Your task to perform on an android device: change alarm snooze length Image 0: 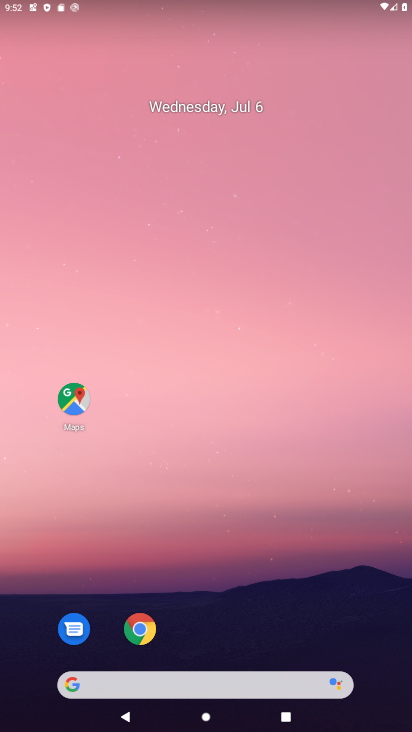
Step 0: drag from (231, 344) to (194, 99)
Your task to perform on an android device: change alarm snooze length Image 1: 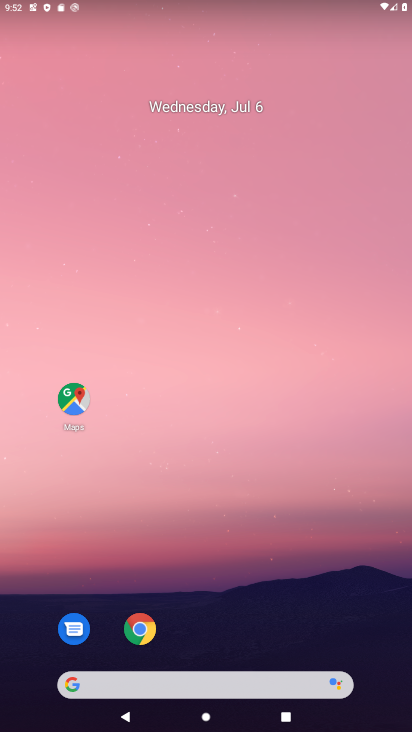
Step 1: drag from (217, 656) to (228, 27)
Your task to perform on an android device: change alarm snooze length Image 2: 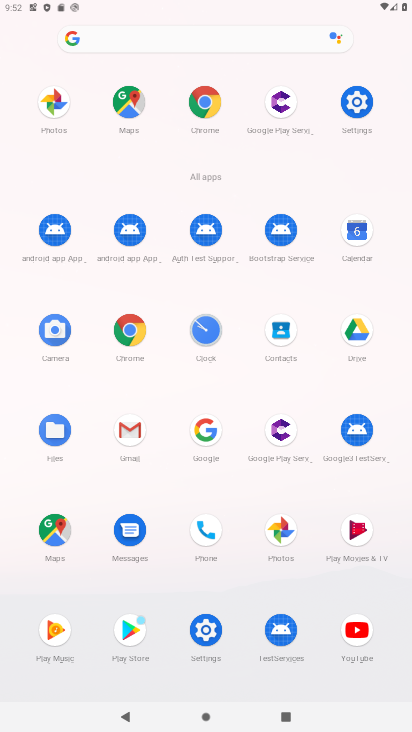
Step 2: click (205, 338)
Your task to perform on an android device: change alarm snooze length Image 3: 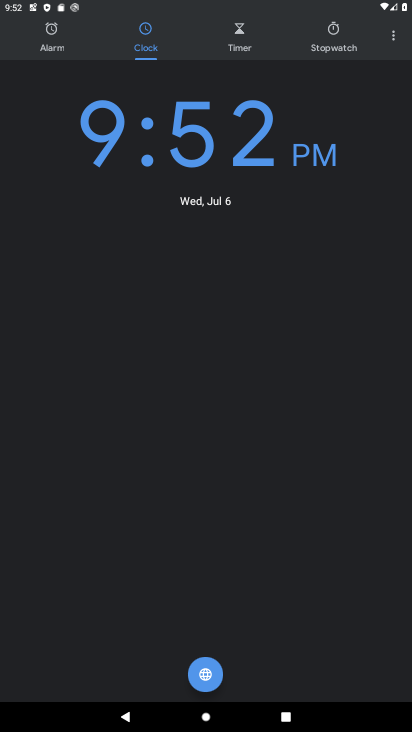
Step 3: click (390, 39)
Your task to perform on an android device: change alarm snooze length Image 4: 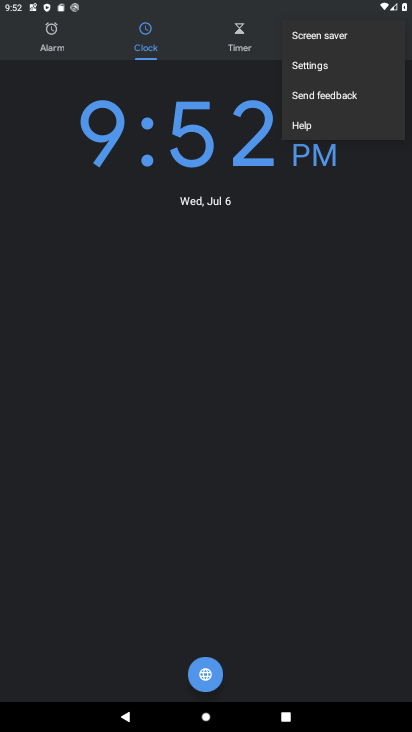
Step 4: click (326, 67)
Your task to perform on an android device: change alarm snooze length Image 5: 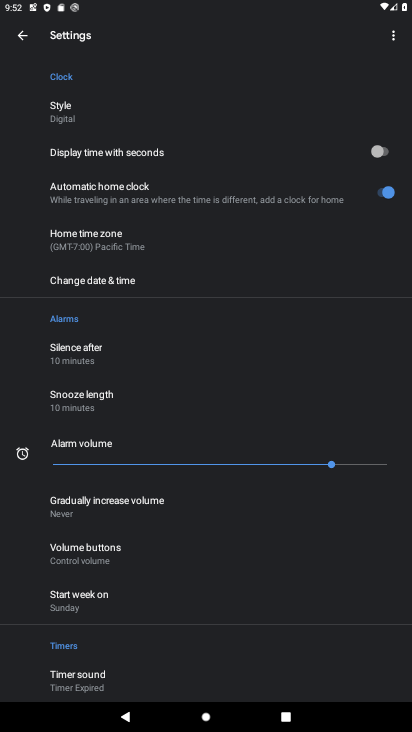
Step 5: click (93, 394)
Your task to perform on an android device: change alarm snooze length Image 6: 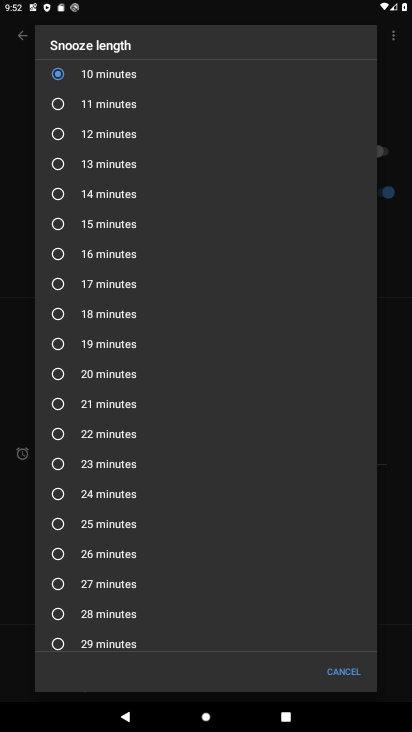
Step 6: click (56, 136)
Your task to perform on an android device: change alarm snooze length Image 7: 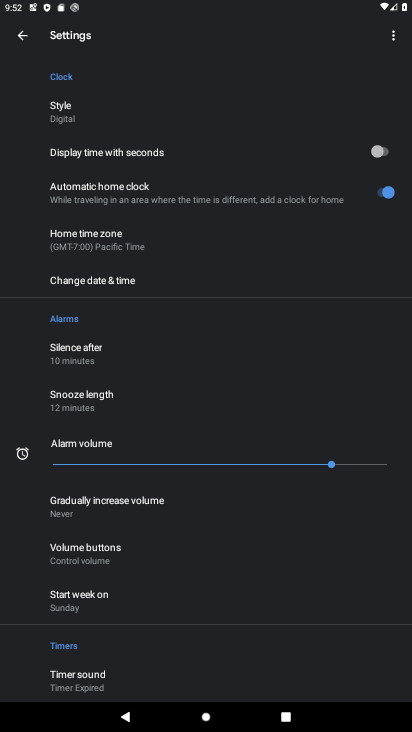
Step 7: task complete